Your task to perform on an android device: Find coffee shops on Maps Image 0: 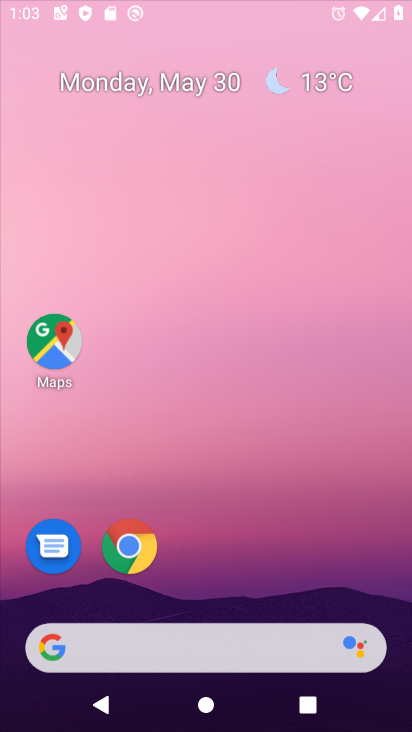
Step 0: press home button
Your task to perform on an android device: Find coffee shops on Maps Image 1: 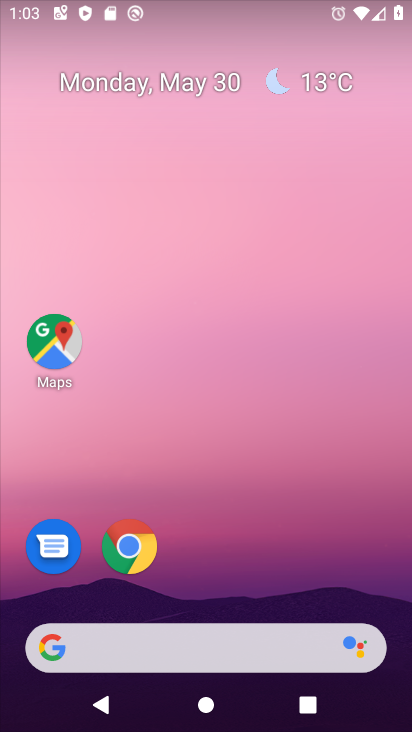
Step 1: click (46, 338)
Your task to perform on an android device: Find coffee shops on Maps Image 2: 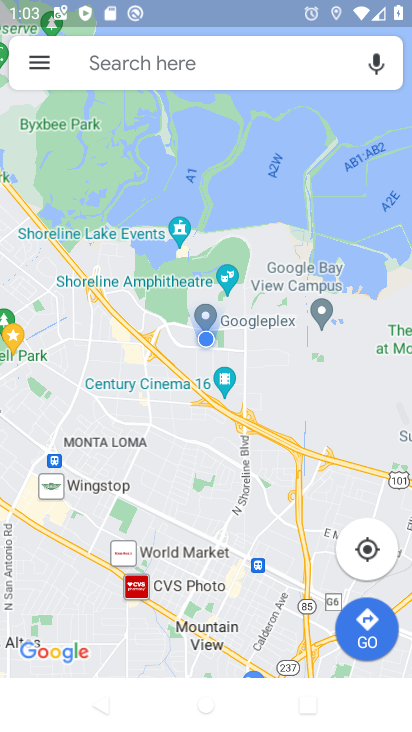
Step 2: click (210, 63)
Your task to perform on an android device: Find coffee shops on Maps Image 3: 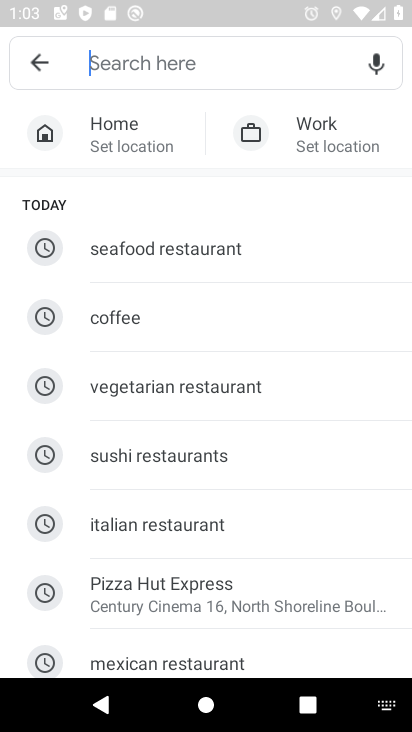
Step 3: type "coffee shops"
Your task to perform on an android device: Find coffee shops on Maps Image 4: 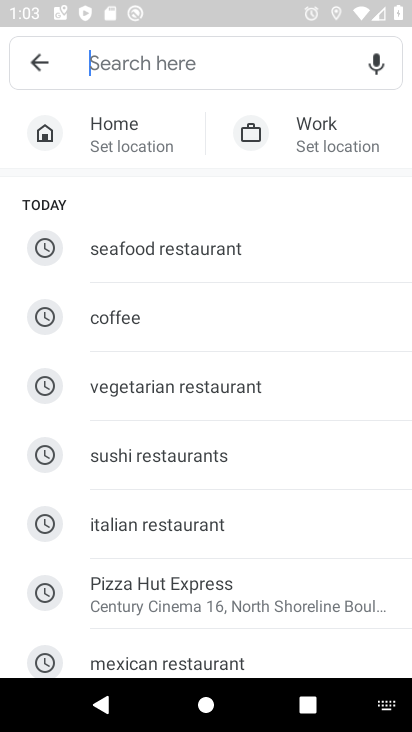
Step 4: click (209, 57)
Your task to perform on an android device: Find coffee shops on Maps Image 5: 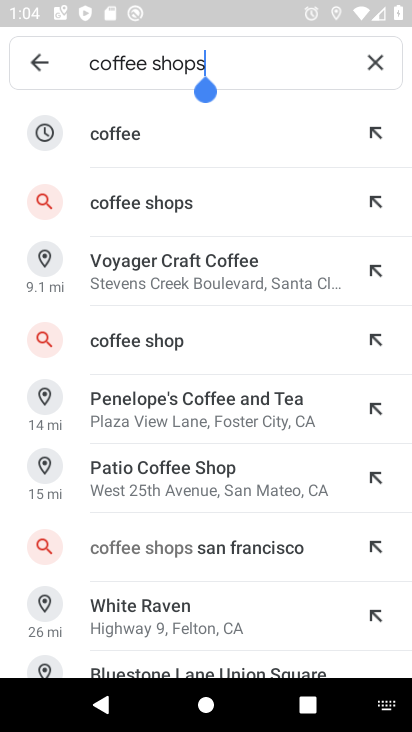
Step 5: click (137, 203)
Your task to perform on an android device: Find coffee shops on Maps Image 6: 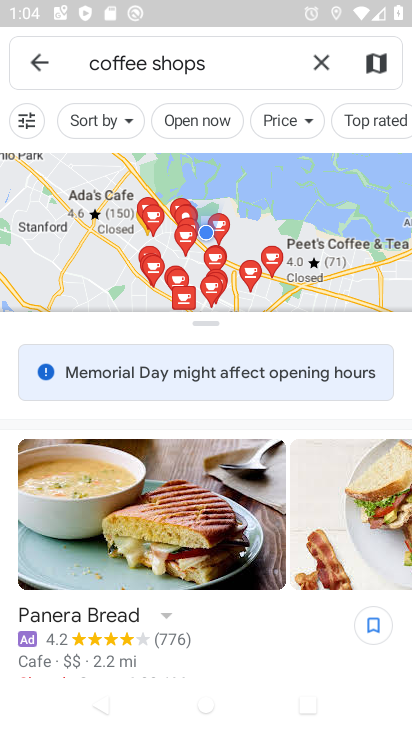
Step 6: task complete